Your task to perform on an android device: What is the news today? Image 0: 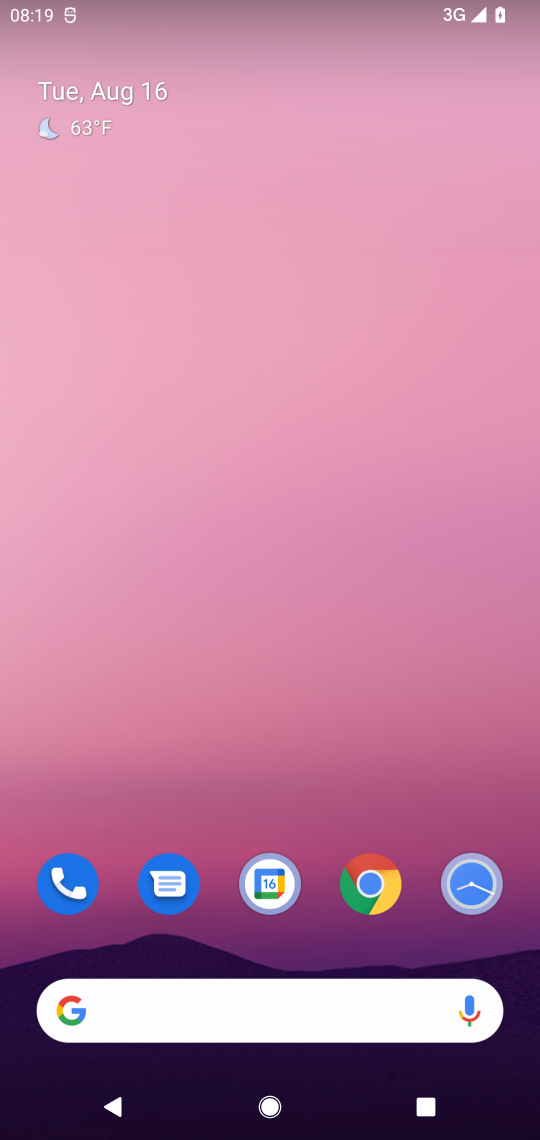
Step 0: press home button
Your task to perform on an android device: What is the news today? Image 1: 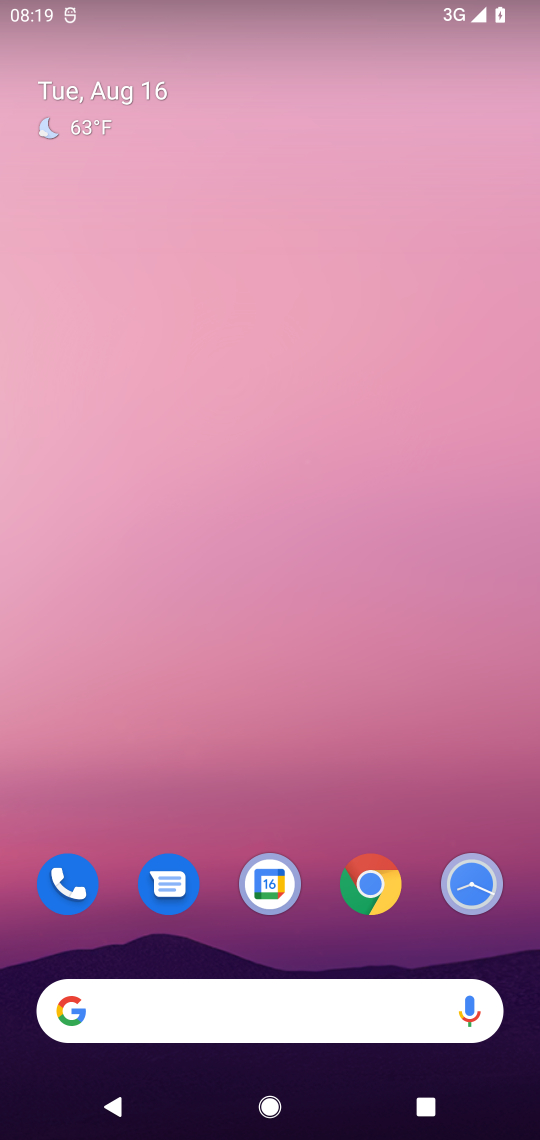
Step 1: drag from (357, 444) to (366, 39)
Your task to perform on an android device: What is the news today? Image 2: 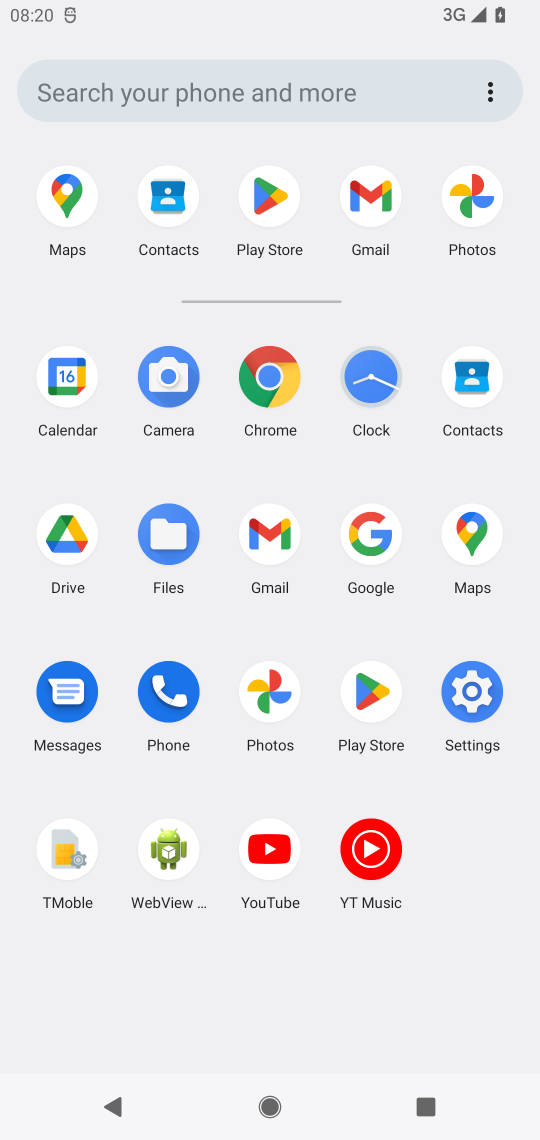
Step 2: press home button
Your task to perform on an android device: What is the news today? Image 3: 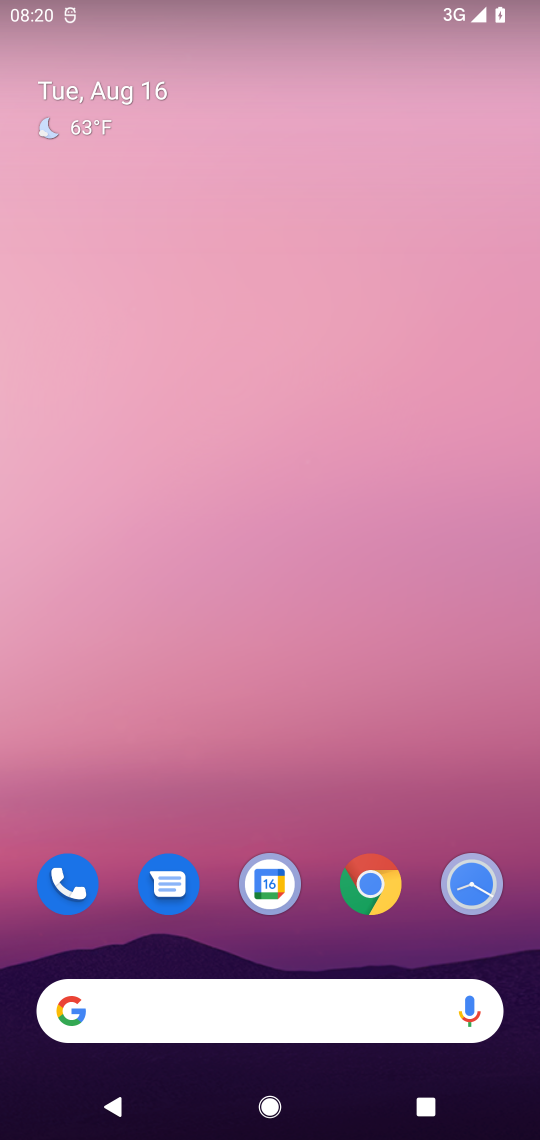
Step 3: click (58, 1008)
Your task to perform on an android device: What is the news today? Image 4: 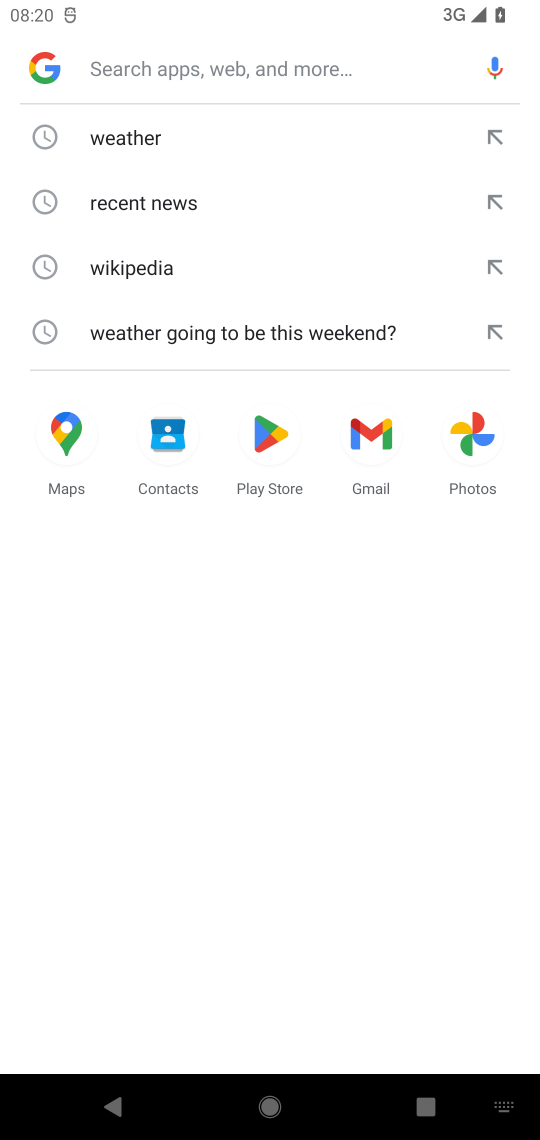
Step 4: click (131, 196)
Your task to perform on an android device: What is the news today? Image 5: 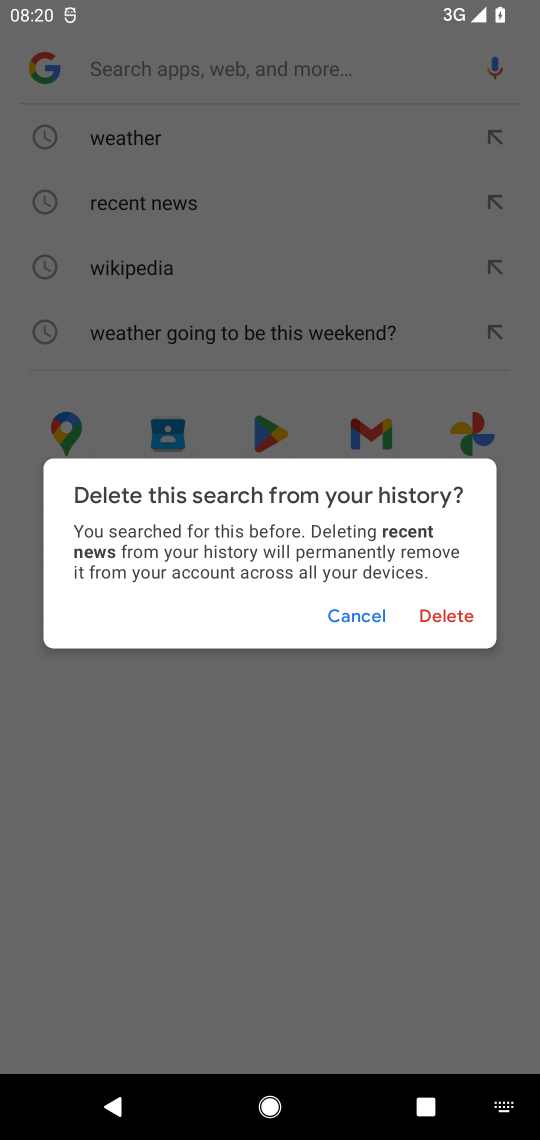
Step 5: click (353, 623)
Your task to perform on an android device: What is the news today? Image 6: 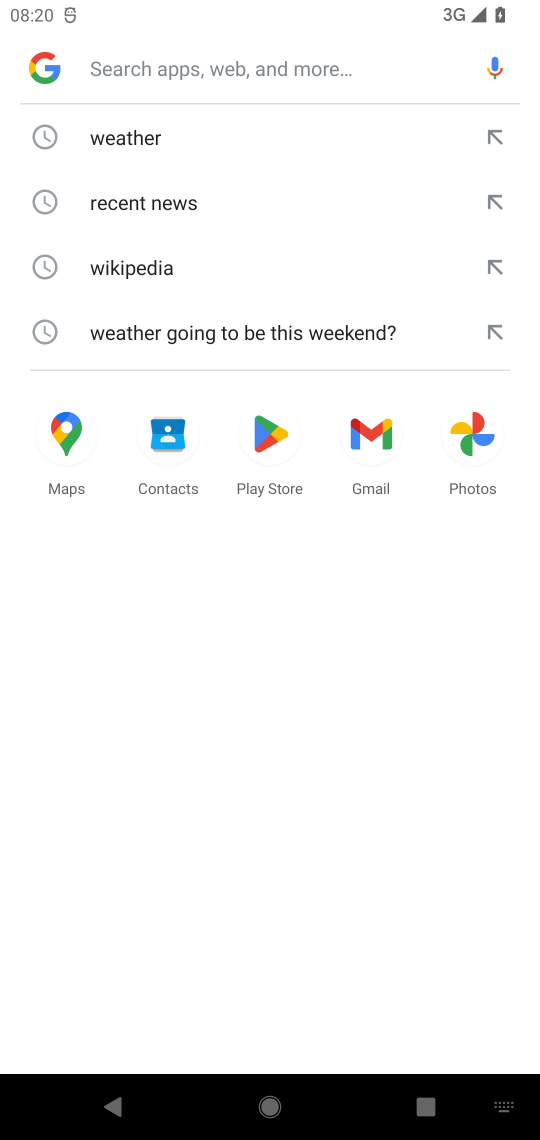
Step 6: type "news today"
Your task to perform on an android device: What is the news today? Image 7: 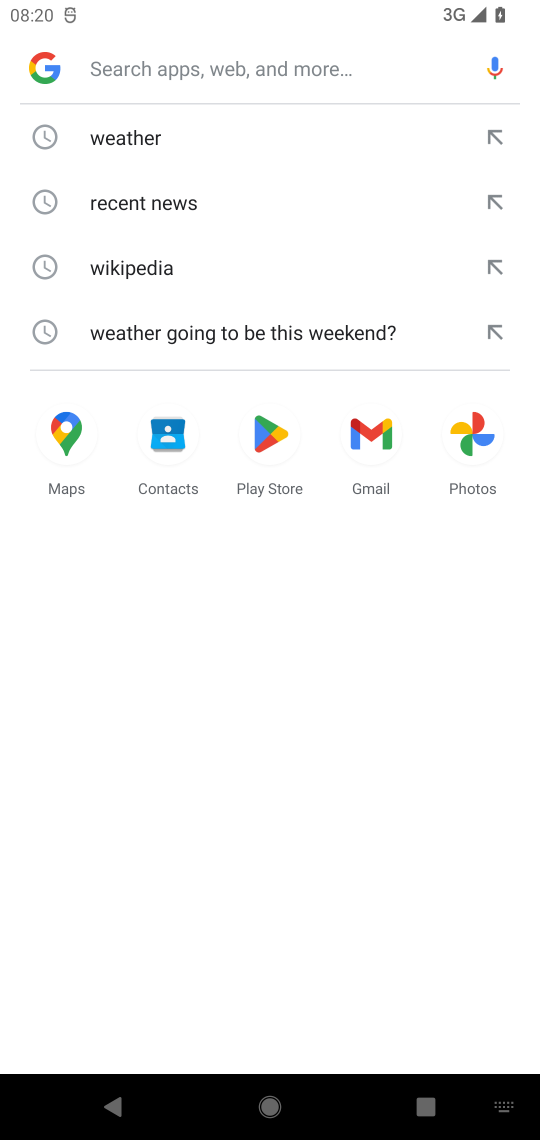
Step 7: click (185, 73)
Your task to perform on an android device: What is the news today? Image 8: 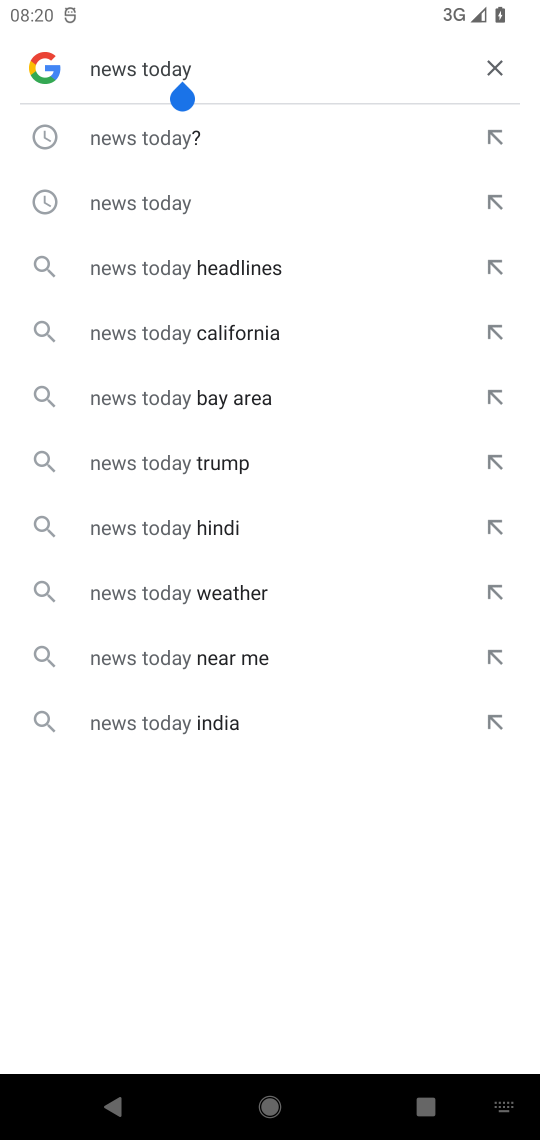
Step 8: press enter
Your task to perform on an android device: What is the news today? Image 9: 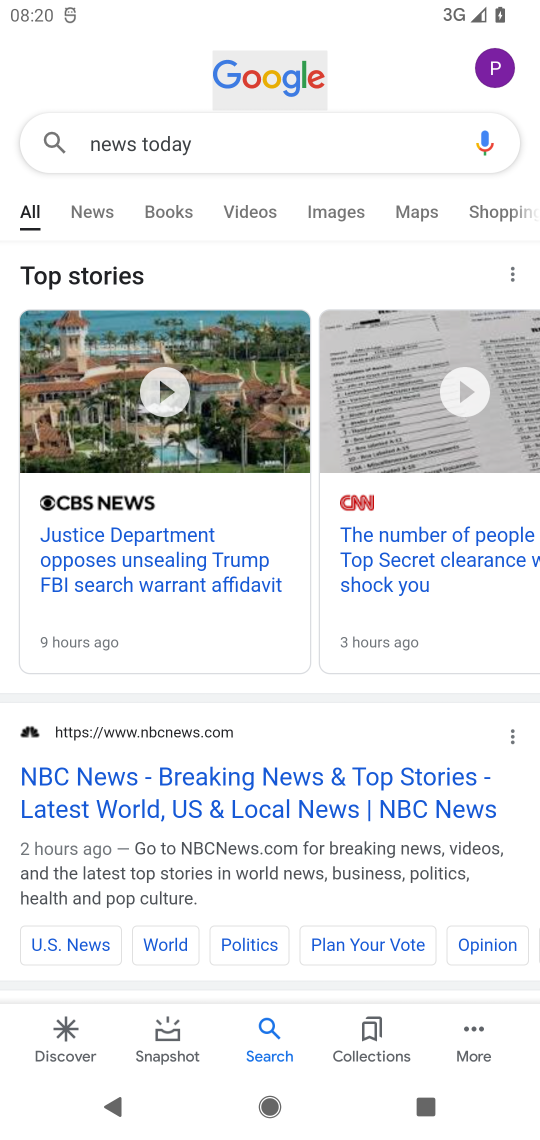
Step 9: task complete